Your task to perform on an android device: make emails show in primary in the gmail app Image 0: 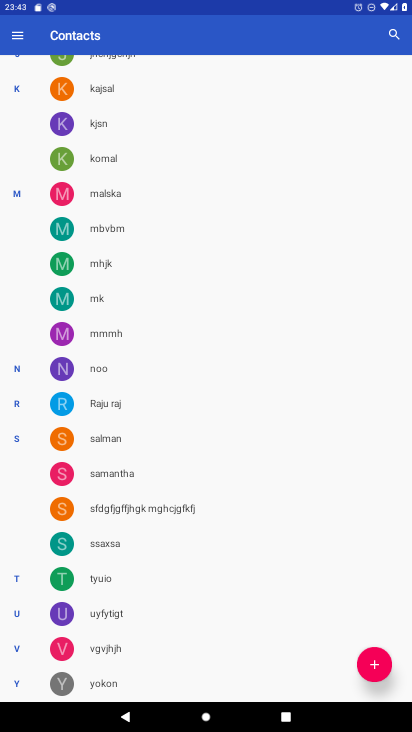
Step 0: drag from (196, 607) to (238, 229)
Your task to perform on an android device: make emails show in primary in the gmail app Image 1: 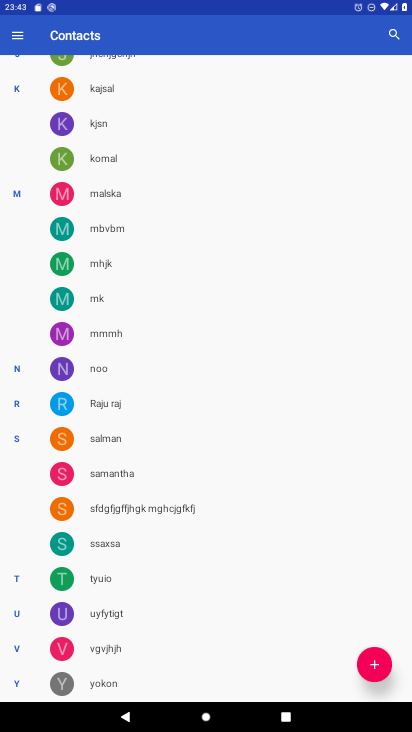
Step 1: drag from (193, 585) to (200, 186)
Your task to perform on an android device: make emails show in primary in the gmail app Image 2: 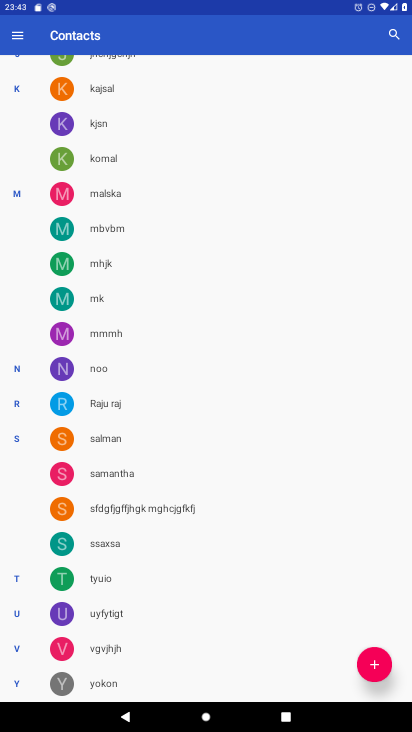
Step 2: drag from (190, 666) to (166, 320)
Your task to perform on an android device: make emails show in primary in the gmail app Image 3: 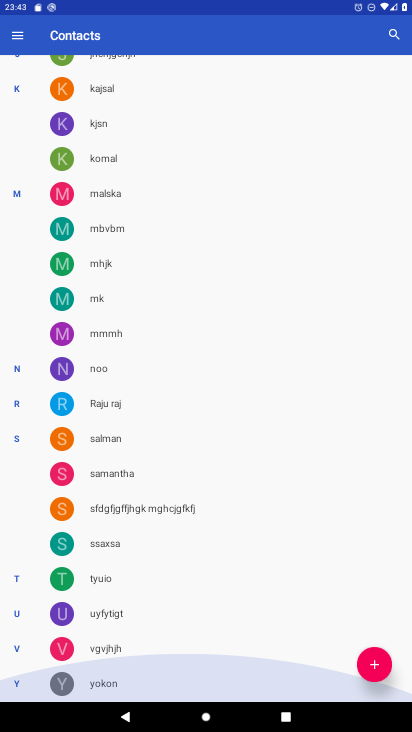
Step 3: drag from (153, 239) to (258, 725)
Your task to perform on an android device: make emails show in primary in the gmail app Image 4: 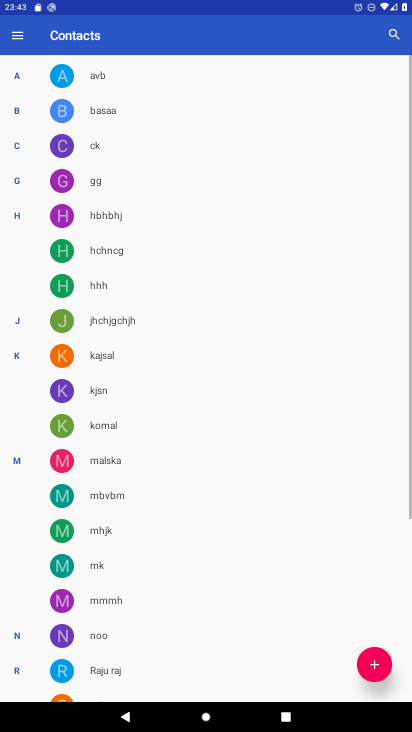
Step 4: drag from (175, 594) to (173, 491)
Your task to perform on an android device: make emails show in primary in the gmail app Image 5: 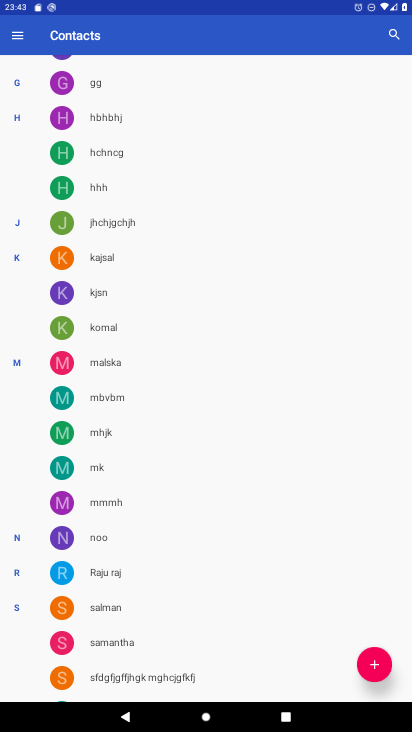
Step 5: drag from (205, 584) to (205, 306)
Your task to perform on an android device: make emails show in primary in the gmail app Image 6: 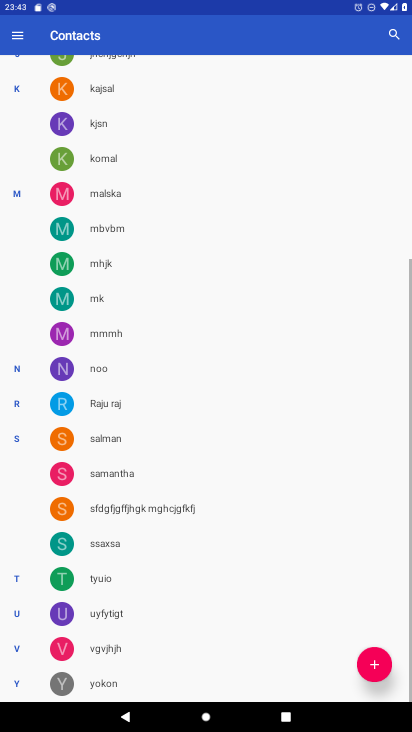
Step 6: drag from (207, 280) to (253, 723)
Your task to perform on an android device: make emails show in primary in the gmail app Image 7: 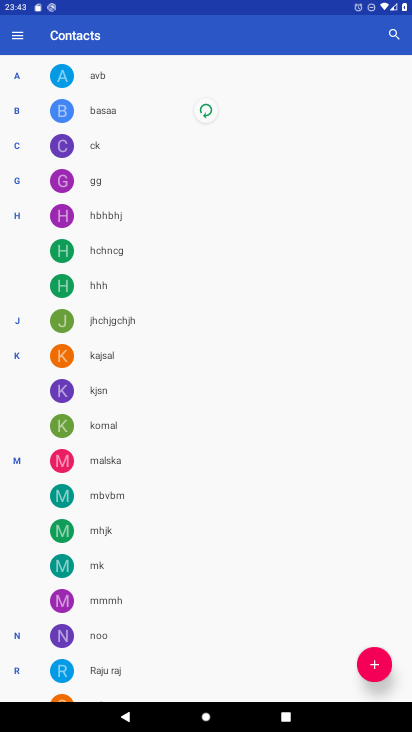
Step 7: press home button
Your task to perform on an android device: make emails show in primary in the gmail app Image 8: 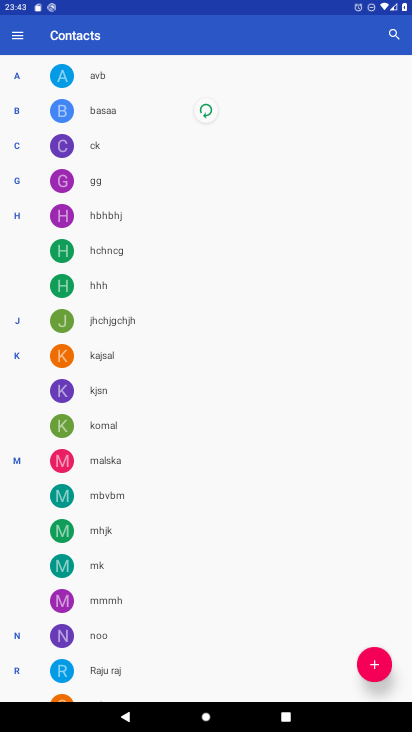
Step 8: drag from (253, 723) to (401, 565)
Your task to perform on an android device: make emails show in primary in the gmail app Image 9: 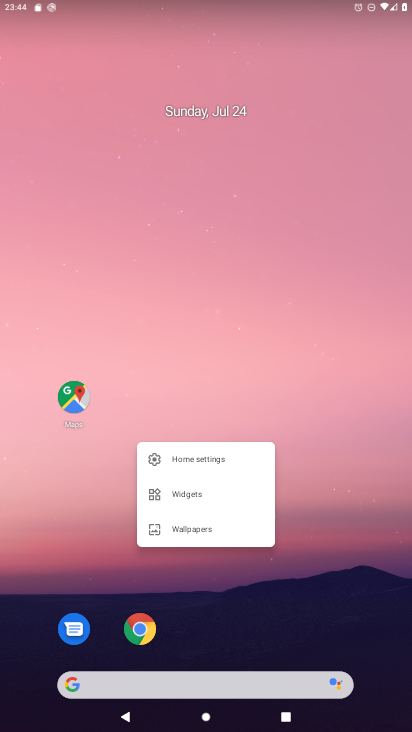
Step 9: drag from (164, 610) to (226, 219)
Your task to perform on an android device: make emails show in primary in the gmail app Image 10: 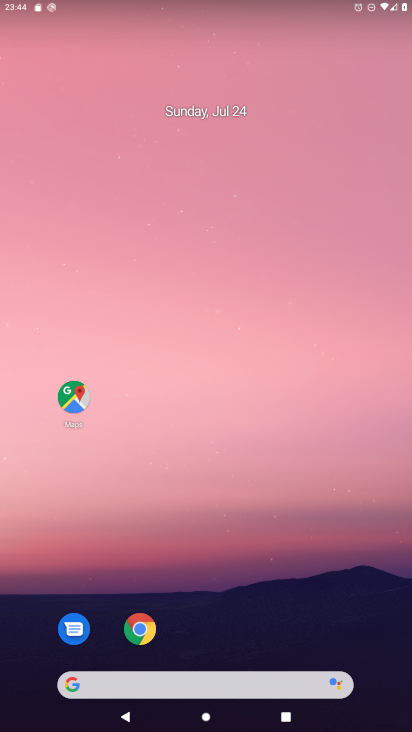
Step 10: drag from (203, 627) to (321, 235)
Your task to perform on an android device: make emails show in primary in the gmail app Image 11: 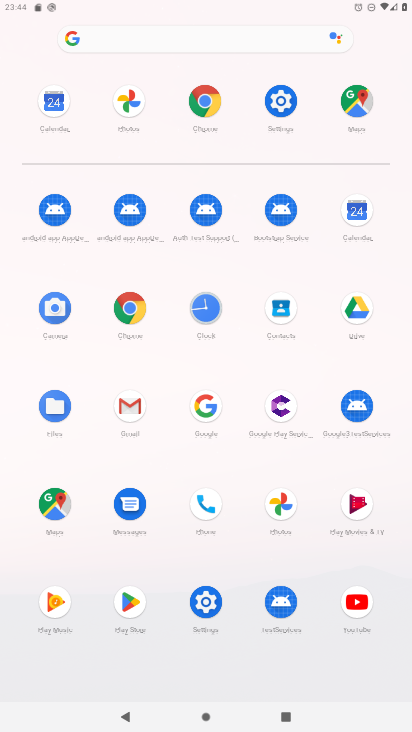
Step 11: click (128, 403)
Your task to perform on an android device: make emails show in primary in the gmail app Image 12: 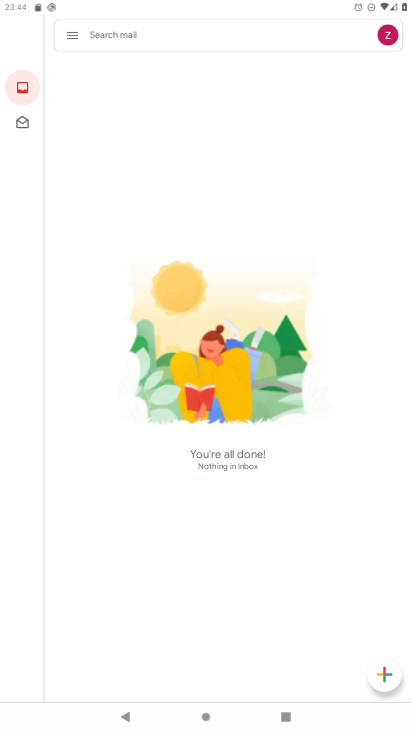
Step 12: click (75, 35)
Your task to perform on an android device: make emails show in primary in the gmail app Image 13: 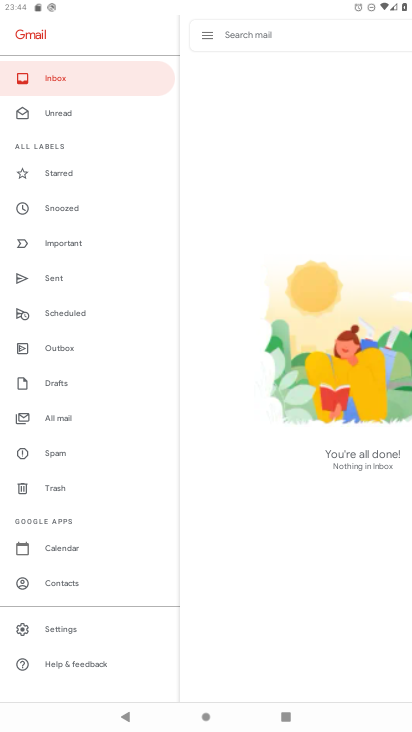
Step 13: click (47, 84)
Your task to perform on an android device: make emails show in primary in the gmail app Image 14: 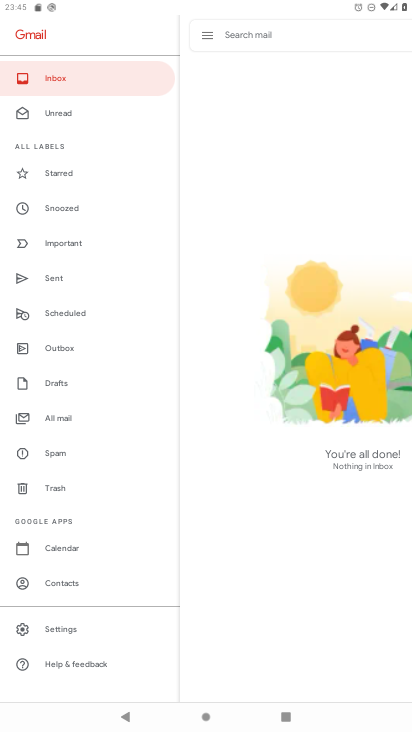
Step 14: task complete